Your task to perform on an android device: add a contact Image 0: 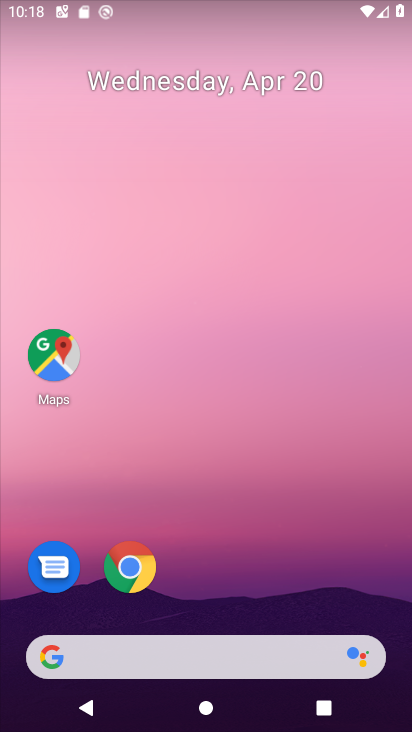
Step 0: drag from (333, 585) to (330, 198)
Your task to perform on an android device: add a contact Image 1: 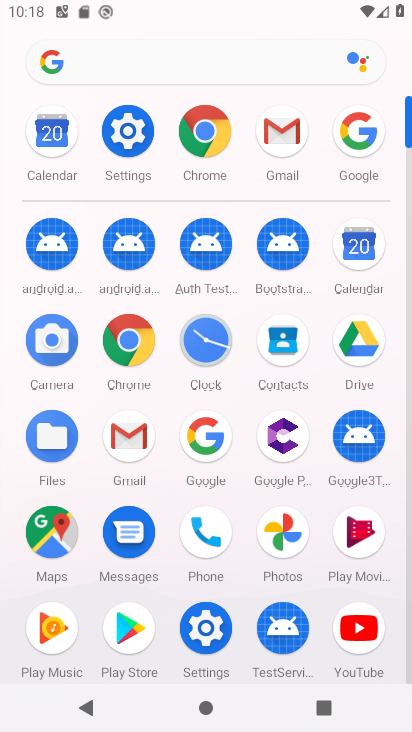
Step 1: click (290, 356)
Your task to perform on an android device: add a contact Image 2: 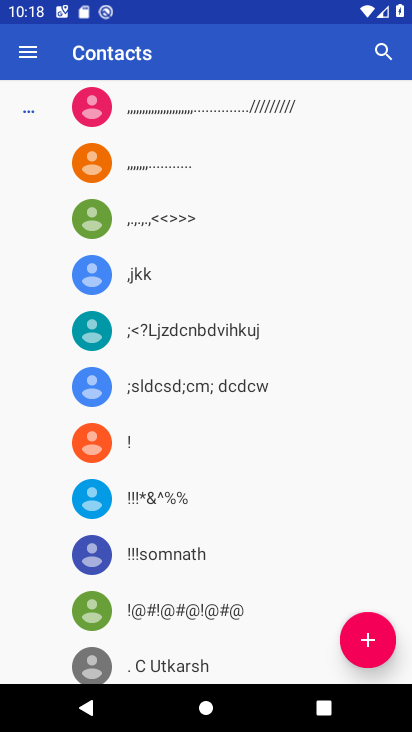
Step 2: click (377, 655)
Your task to perform on an android device: add a contact Image 3: 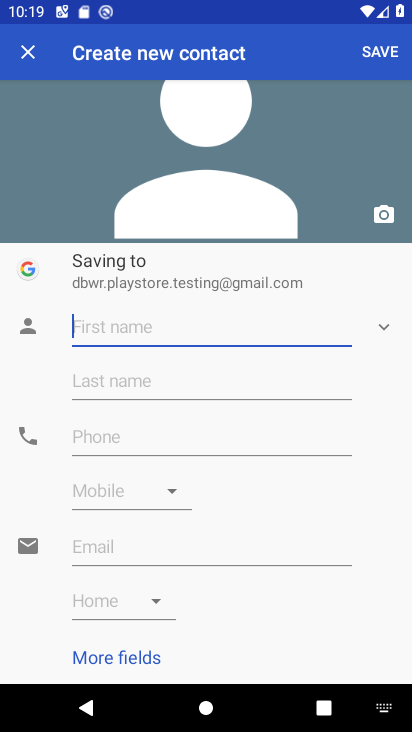
Step 3: type "virus"
Your task to perform on an android device: add a contact Image 4: 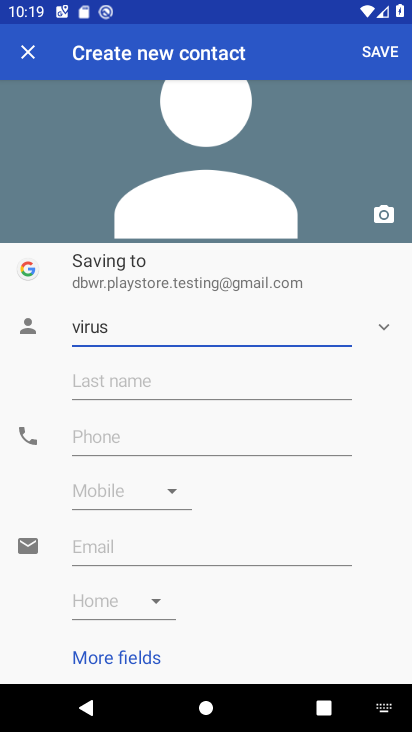
Step 4: click (235, 424)
Your task to perform on an android device: add a contact Image 5: 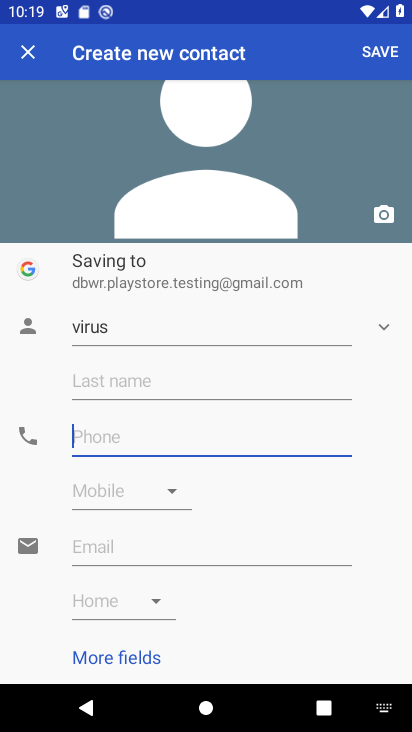
Step 5: type "1234567890"
Your task to perform on an android device: add a contact Image 6: 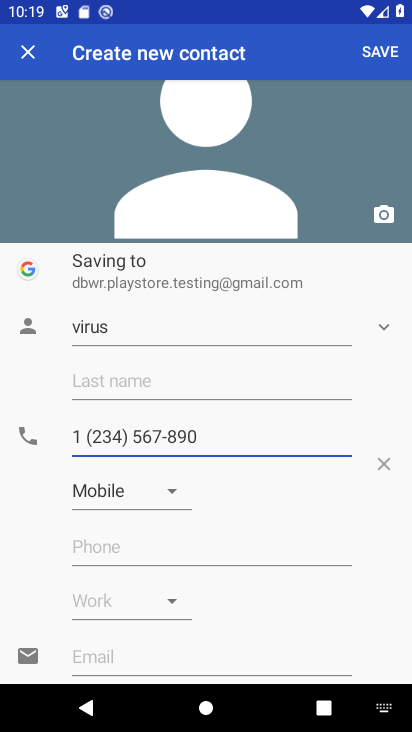
Step 6: click (381, 57)
Your task to perform on an android device: add a contact Image 7: 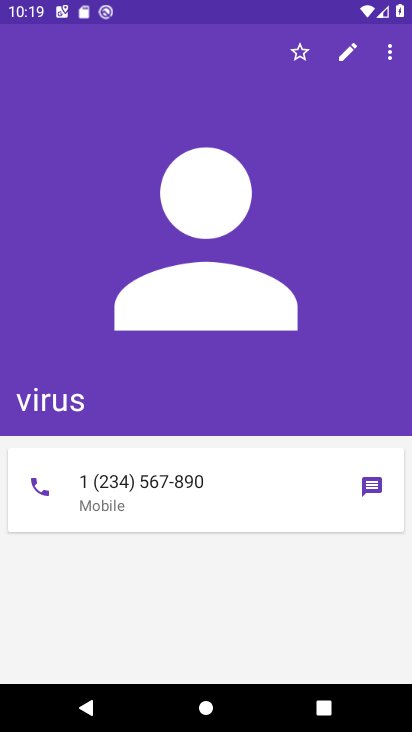
Step 7: task complete